Your task to perform on an android device: make emails show in primary in the gmail app Image 0: 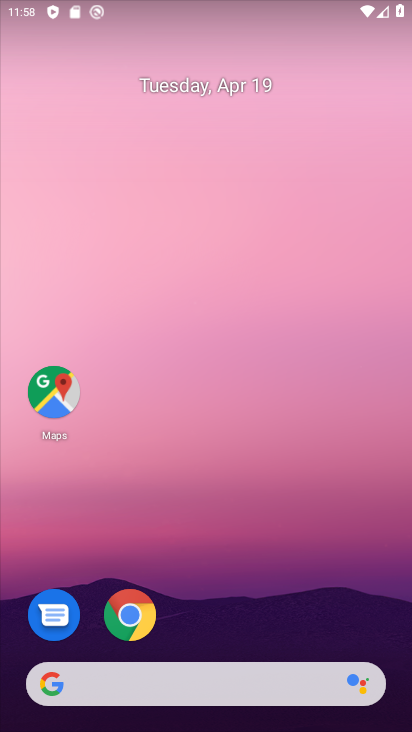
Step 0: drag from (226, 613) to (224, 144)
Your task to perform on an android device: make emails show in primary in the gmail app Image 1: 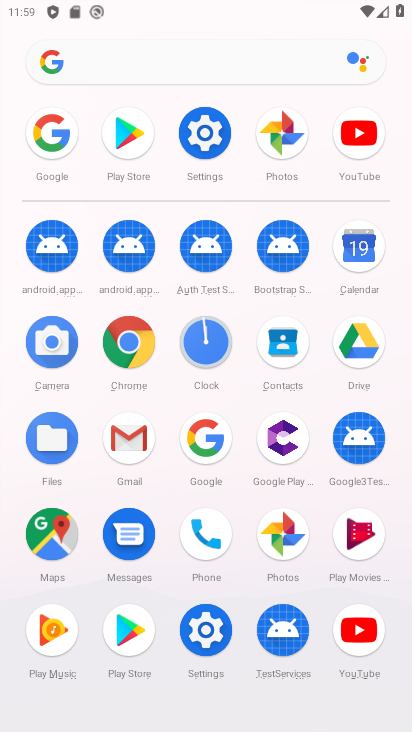
Step 1: click (124, 438)
Your task to perform on an android device: make emails show in primary in the gmail app Image 2: 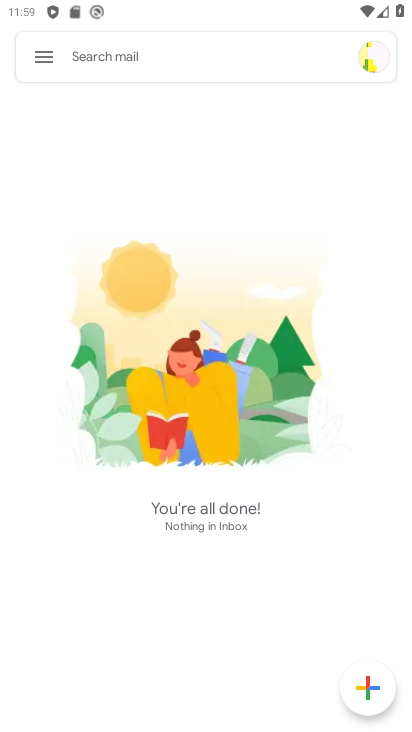
Step 2: click (42, 56)
Your task to perform on an android device: make emails show in primary in the gmail app Image 3: 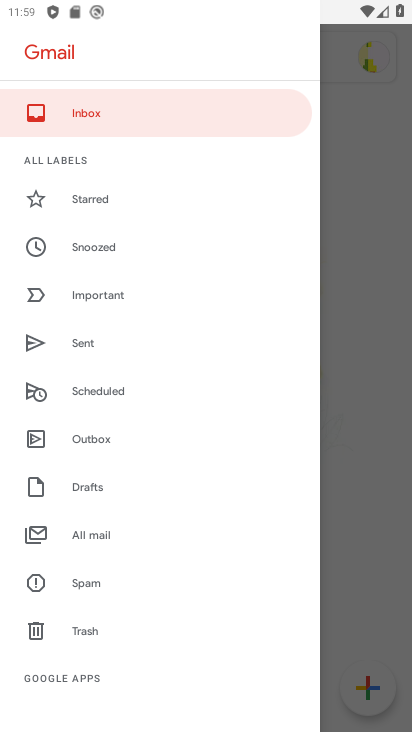
Step 3: drag from (130, 626) to (137, 311)
Your task to perform on an android device: make emails show in primary in the gmail app Image 4: 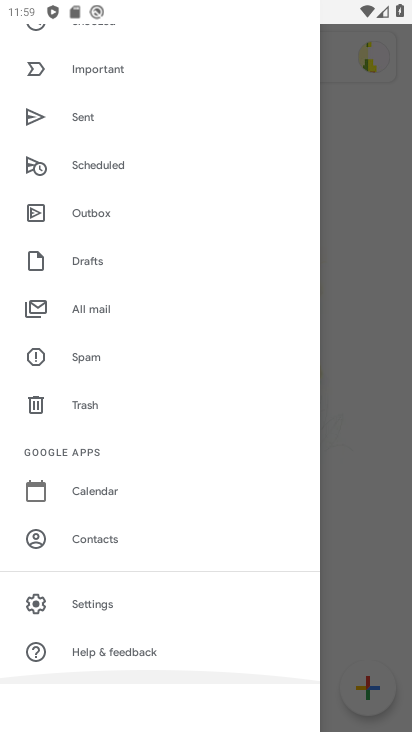
Step 4: drag from (137, 311) to (174, 288)
Your task to perform on an android device: make emails show in primary in the gmail app Image 5: 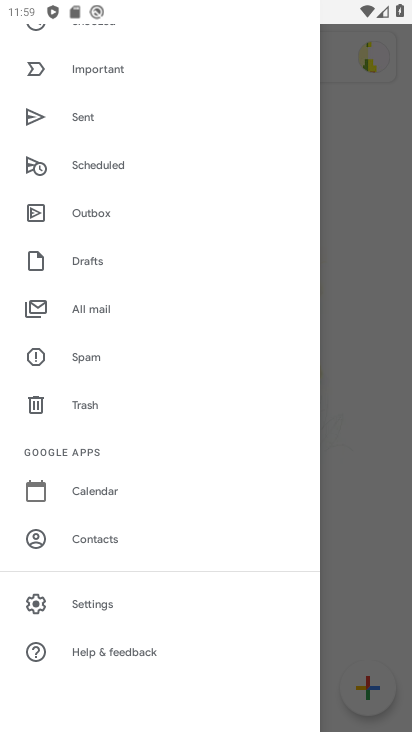
Step 5: click (106, 596)
Your task to perform on an android device: make emails show in primary in the gmail app Image 6: 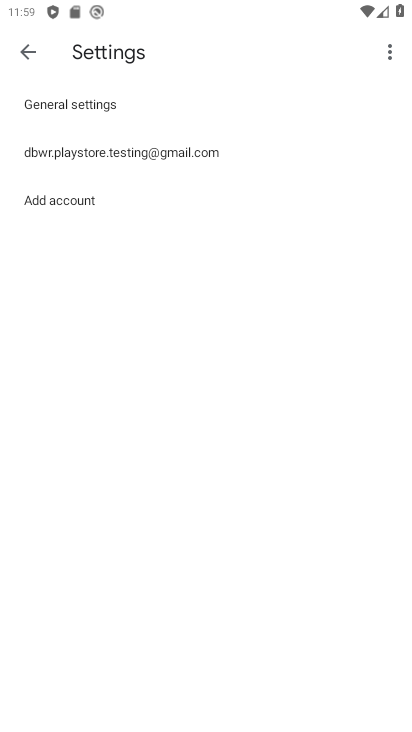
Step 6: click (103, 158)
Your task to perform on an android device: make emails show in primary in the gmail app Image 7: 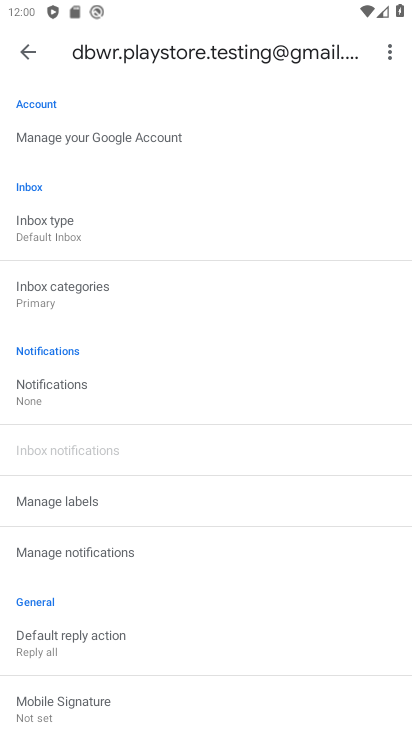
Step 7: task complete